Your task to perform on an android device: turn off location history Image 0: 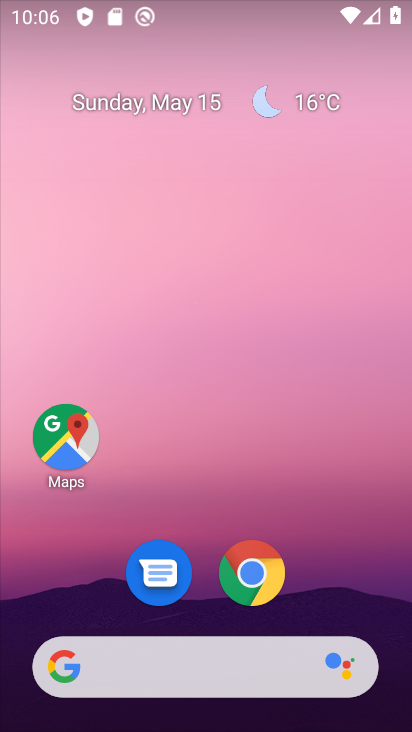
Step 0: drag from (325, 607) to (294, 212)
Your task to perform on an android device: turn off location history Image 1: 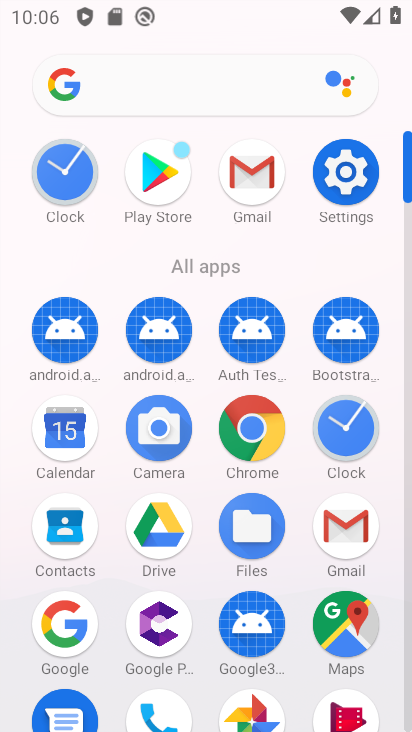
Step 1: click (343, 172)
Your task to perform on an android device: turn off location history Image 2: 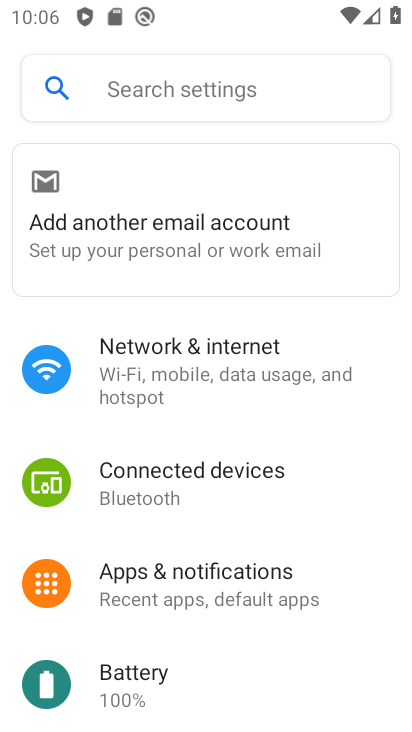
Step 2: drag from (216, 426) to (226, 362)
Your task to perform on an android device: turn off location history Image 3: 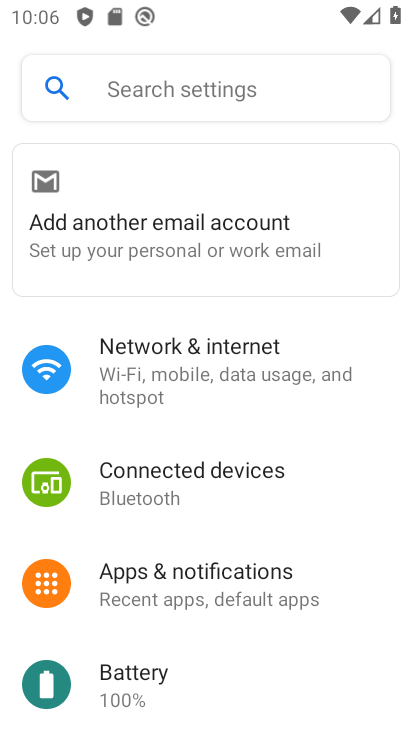
Step 3: drag from (231, 672) to (234, 322)
Your task to perform on an android device: turn off location history Image 4: 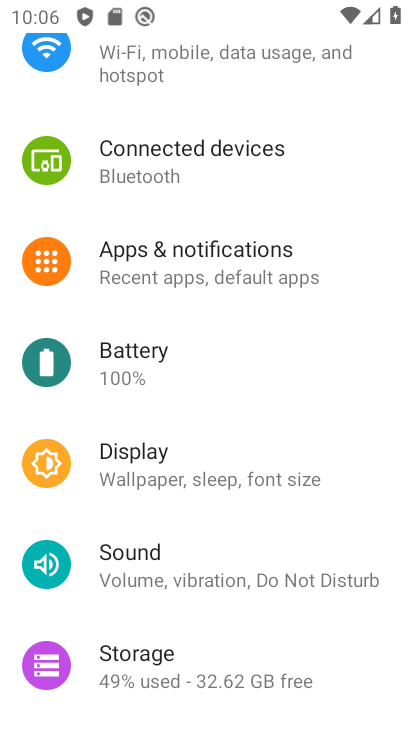
Step 4: drag from (185, 624) to (208, 473)
Your task to perform on an android device: turn off location history Image 5: 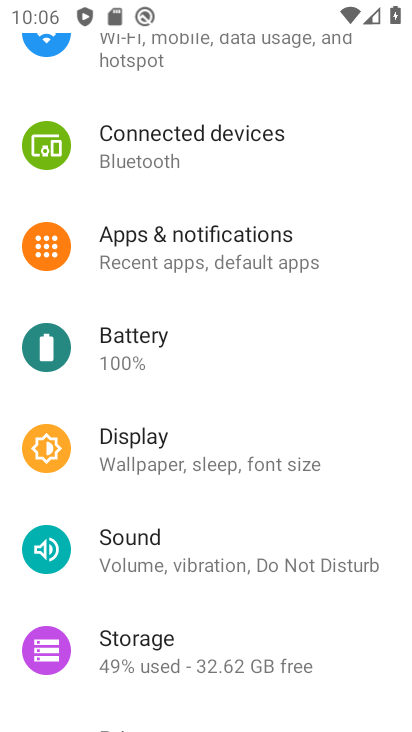
Step 5: click (195, 246)
Your task to perform on an android device: turn off location history Image 6: 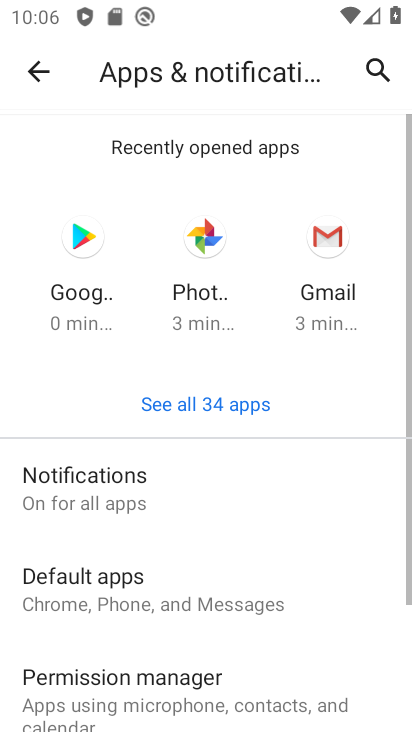
Step 6: click (39, 74)
Your task to perform on an android device: turn off location history Image 7: 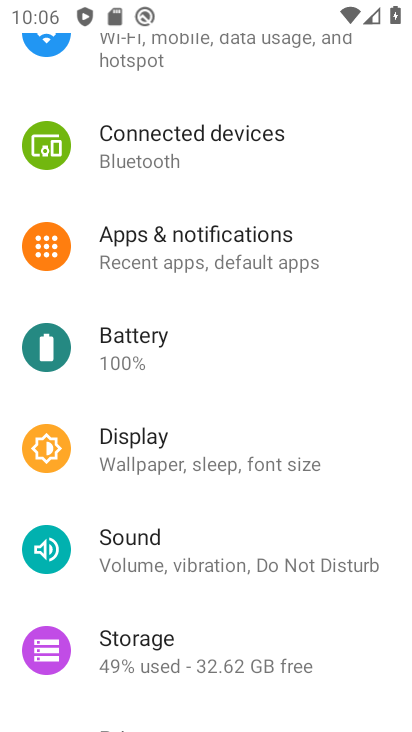
Step 7: drag from (192, 639) to (192, 248)
Your task to perform on an android device: turn off location history Image 8: 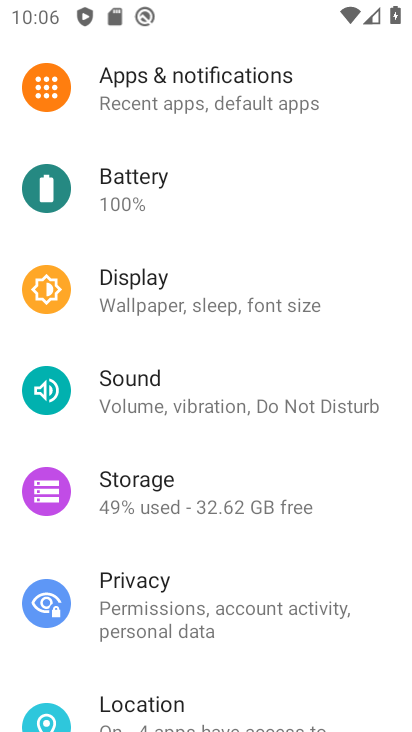
Step 8: click (125, 717)
Your task to perform on an android device: turn off location history Image 9: 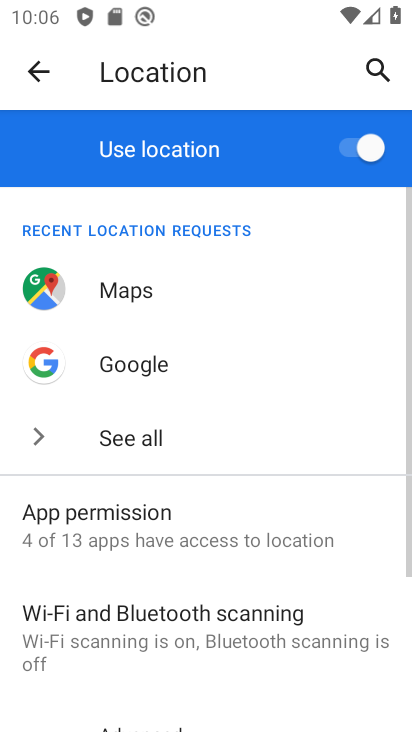
Step 9: drag from (163, 672) to (186, 322)
Your task to perform on an android device: turn off location history Image 10: 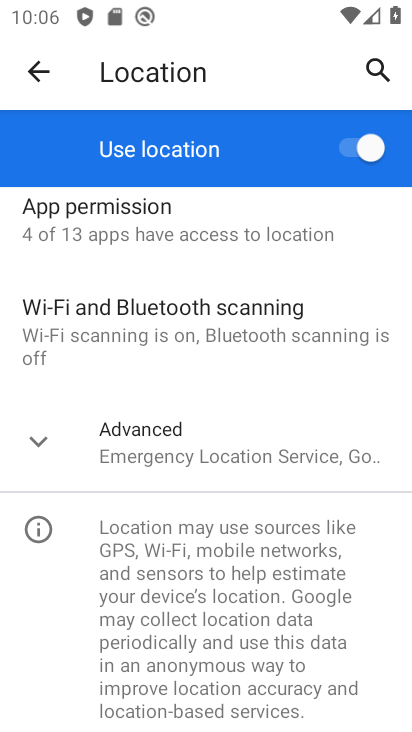
Step 10: click (118, 431)
Your task to perform on an android device: turn off location history Image 11: 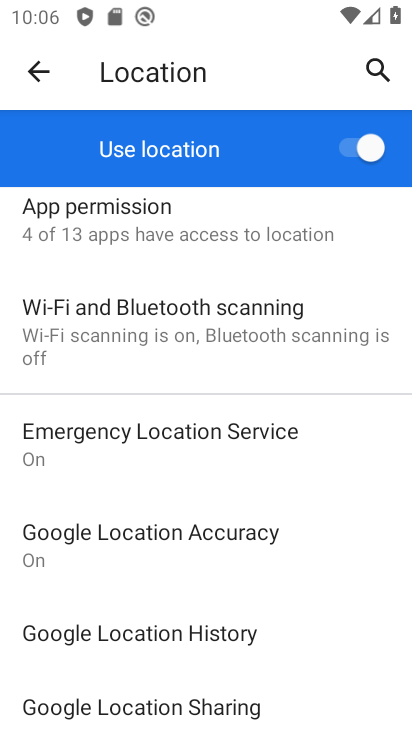
Step 11: click (145, 642)
Your task to perform on an android device: turn off location history Image 12: 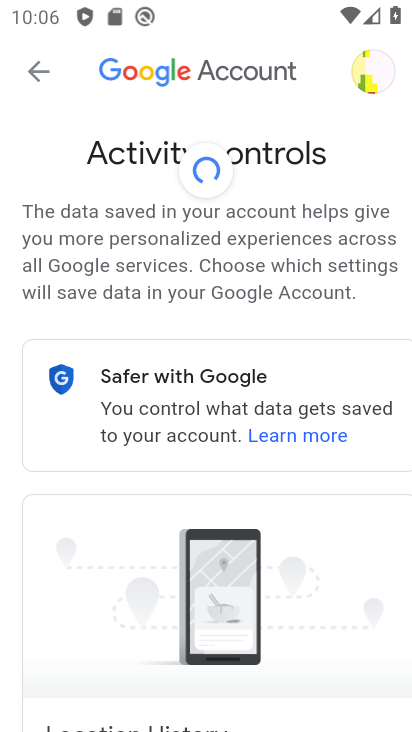
Step 12: drag from (292, 585) to (291, 269)
Your task to perform on an android device: turn off location history Image 13: 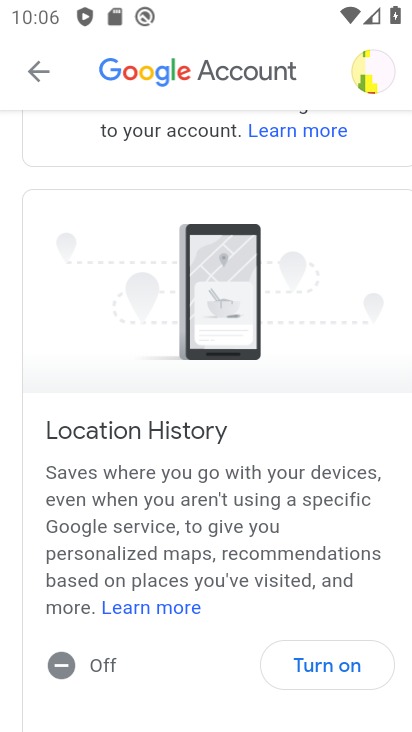
Step 13: drag from (281, 576) to (304, 317)
Your task to perform on an android device: turn off location history Image 14: 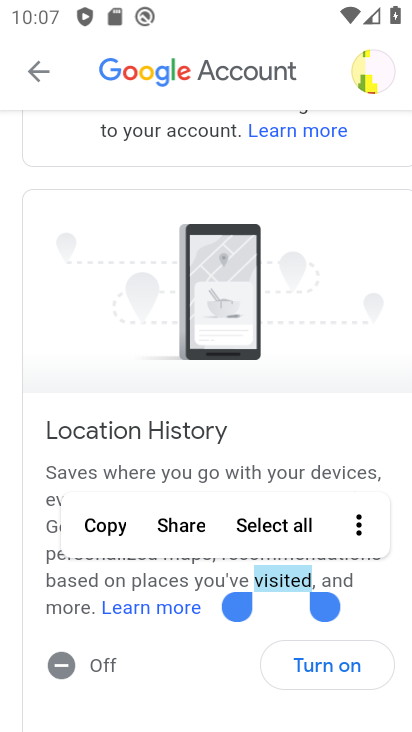
Step 14: click (320, 672)
Your task to perform on an android device: turn off location history Image 15: 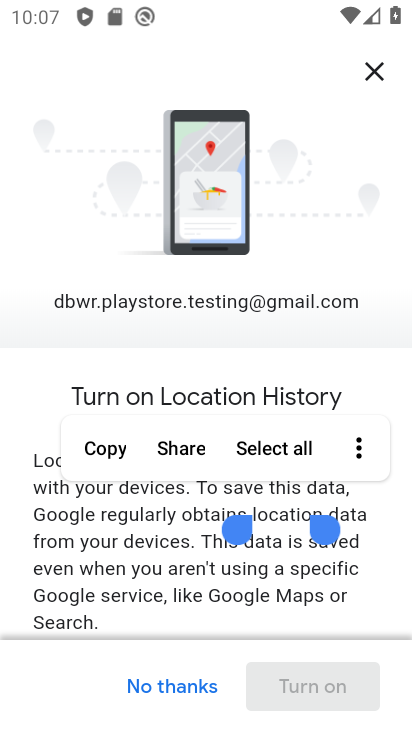
Step 15: drag from (227, 601) to (231, 197)
Your task to perform on an android device: turn off location history Image 16: 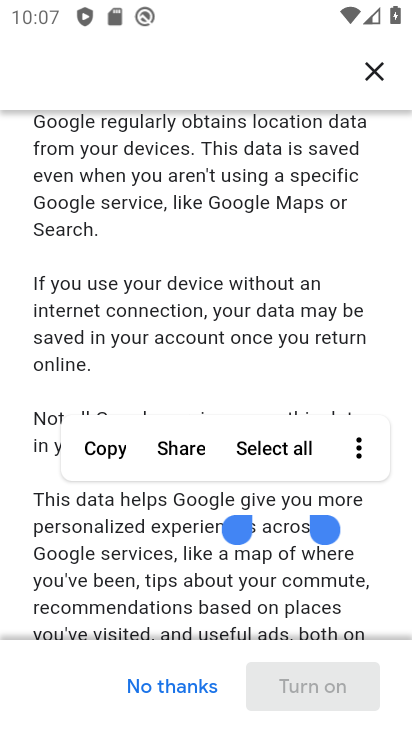
Step 16: drag from (163, 598) to (183, 152)
Your task to perform on an android device: turn off location history Image 17: 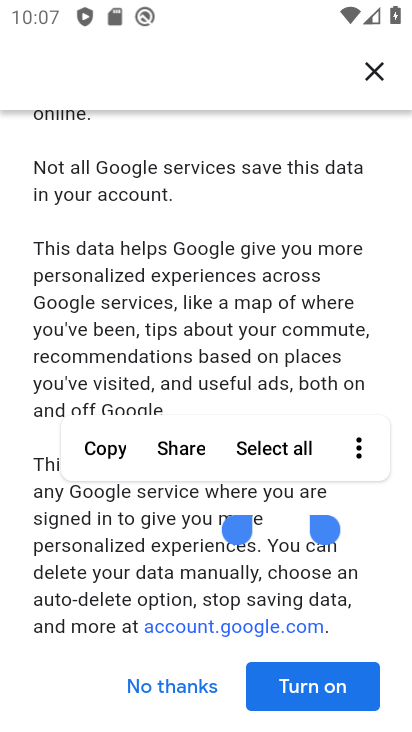
Step 17: click (300, 673)
Your task to perform on an android device: turn off location history Image 18: 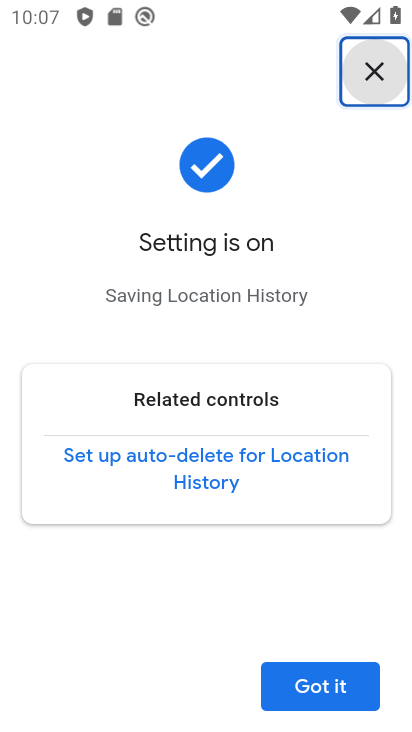
Step 18: click (312, 701)
Your task to perform on an android device: turn off location history Image 19: 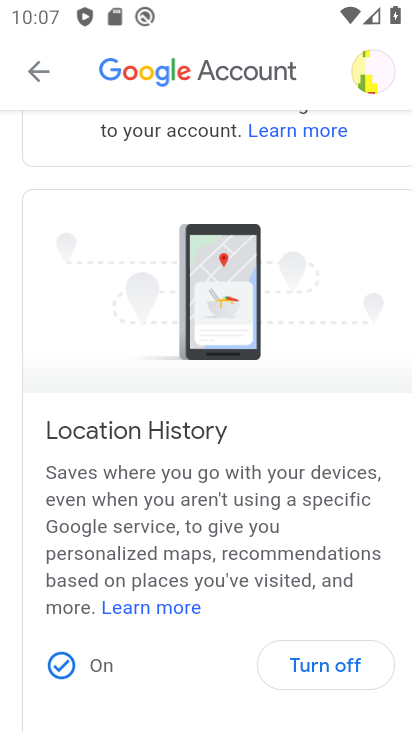
Step 19: click (312, 666)
Your task to perform on an android device: turn off location history Image 20: 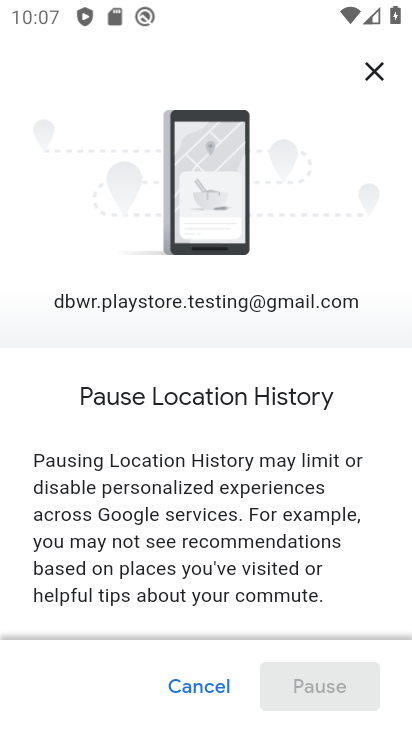
Step 20: drag from (285, 579) to (285, 332)
Your task to perform on an android device: turn off location history Image 21: 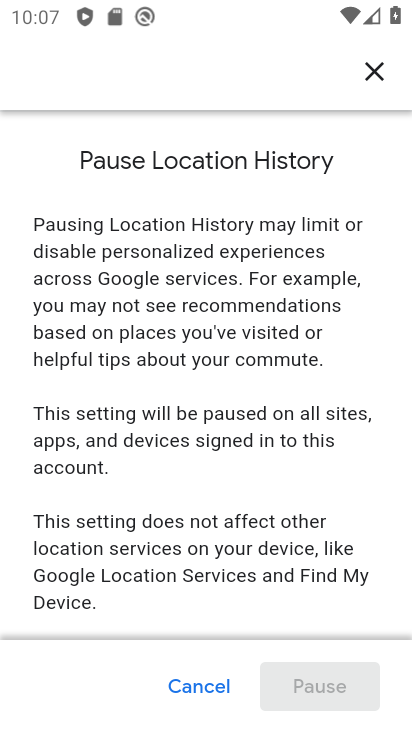
Step 21: drag from (285, 359) to (289, 221)
Your task to perform on an android device: turn off location history Image 22: 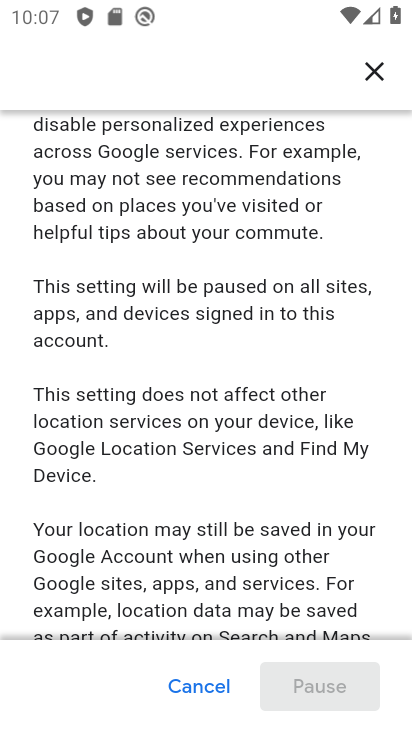
Step 22: drag from (253, 590) to (278, 143)
Your task to perform on an android device: turn off location history Image 23: 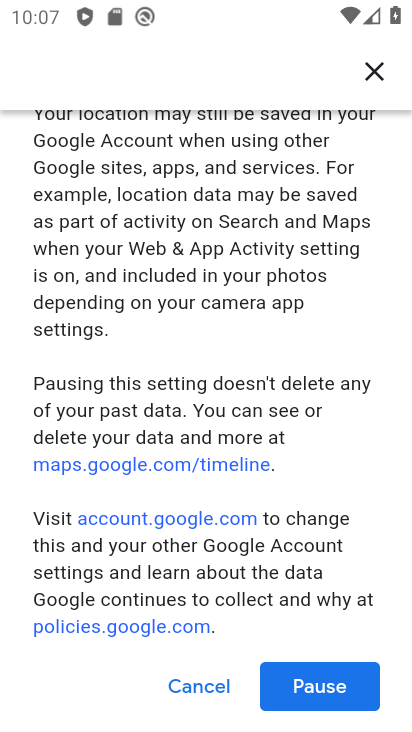
Step 23: click (290, 680)
Your task to perform on an android device: turn off location history Image 24: 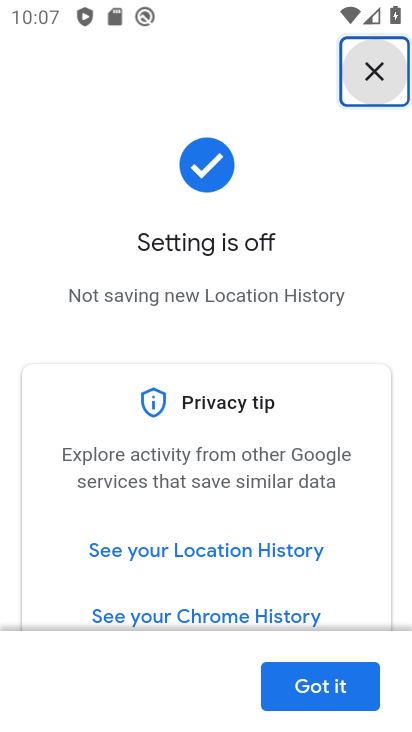
Step 24: drag from (263, 604) to (260, 233)
Your task to perform on an android device: turn off location history Image 25: 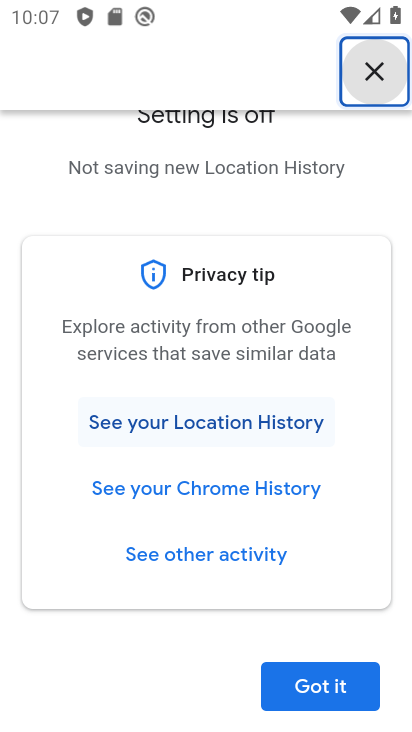
Step 25: drag from (301, 583) to (274, 183)
Your task to perform on an android device: turn off location history Image 26: 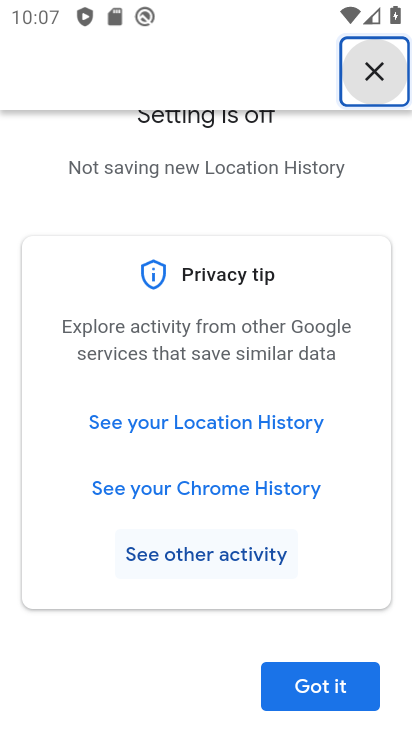
Step 26: click (310, 690)
Your task to perform on an android device: turn off location history Image 27: 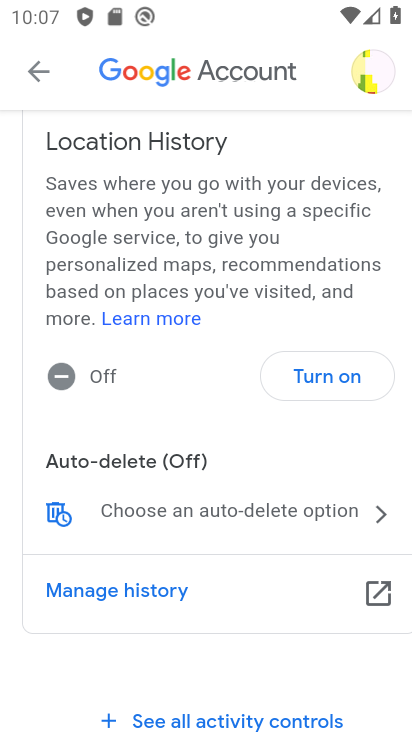
Step 27: task complete